Your task to perform on an android device: stop showing notifications on the lock screen Image 0: 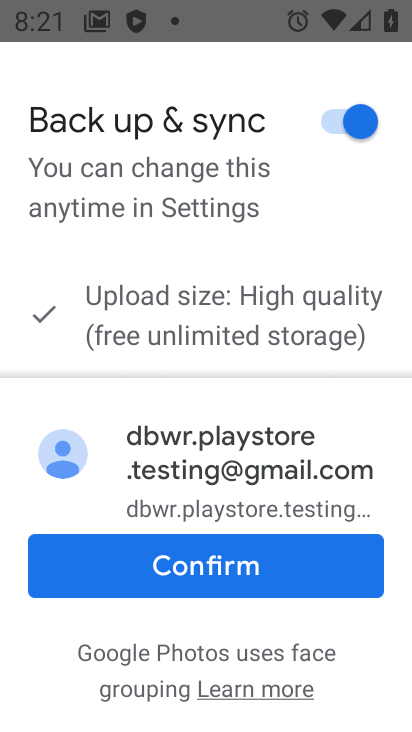
Step 0: press home button
Your task to perform on an android device: stop showing notifications on the lock screen Image 1: 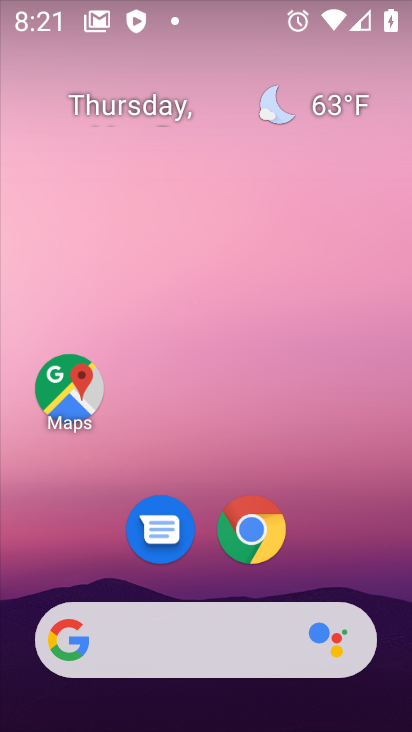
Step 1: drag from (201, 582) to (213, 248)
Your task to perform on an android device: stop showing notifications on the lock screen Image 2: 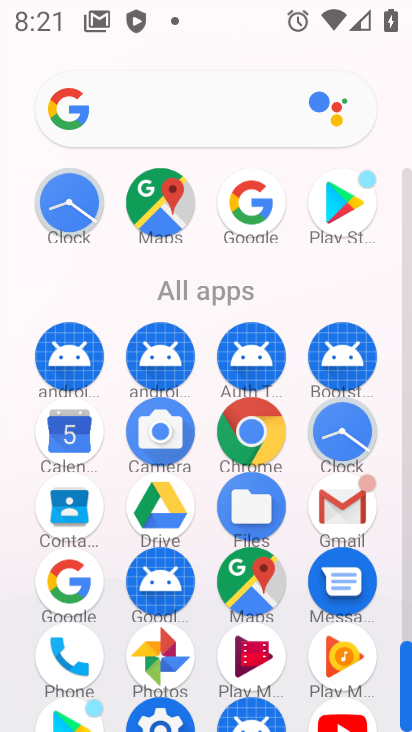
Step 2: click (167, 718)
Your task to perform on an android device: stop showing notifications on the lock screen Image 3: 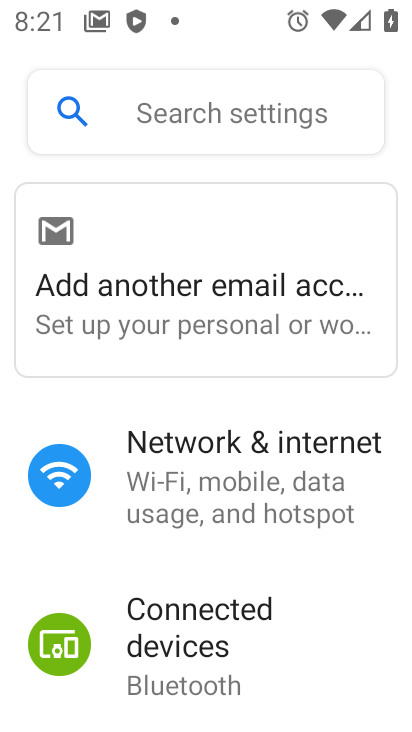
Step 3: drag from (333, 662) to (335, 182)
Your task to perform on an android device: stop showing notifications on the lock screen Image 4: 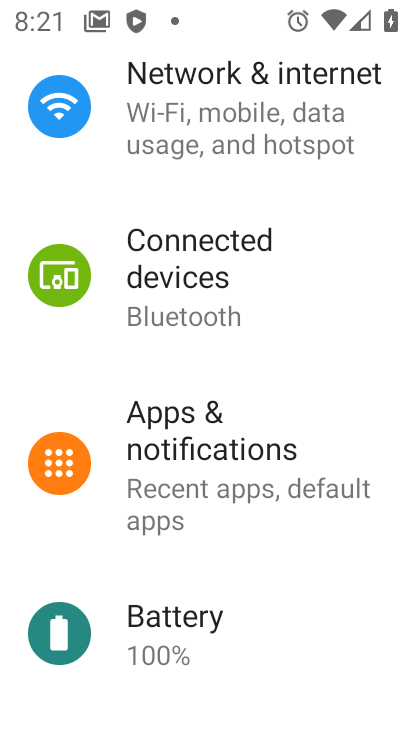
Step 4: click (202, 473)
Your task to perform on an android device: stop showing notifications on the lock screen Image 5: 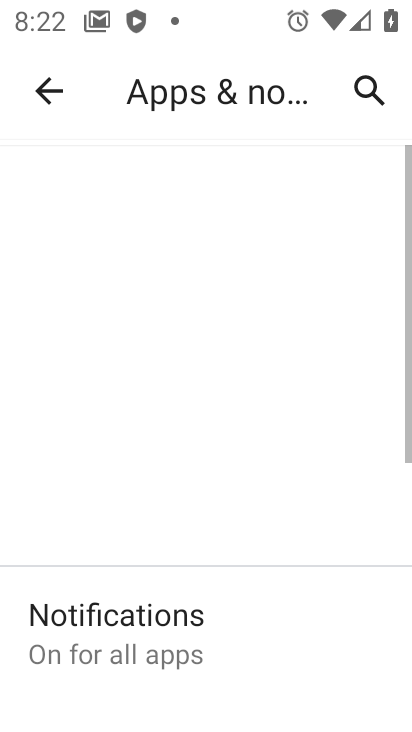
Step 5: drag from (183, 679) to (261, 306)
Your task to perform on an android device: stop showing notifications on the lock screen Image 6: 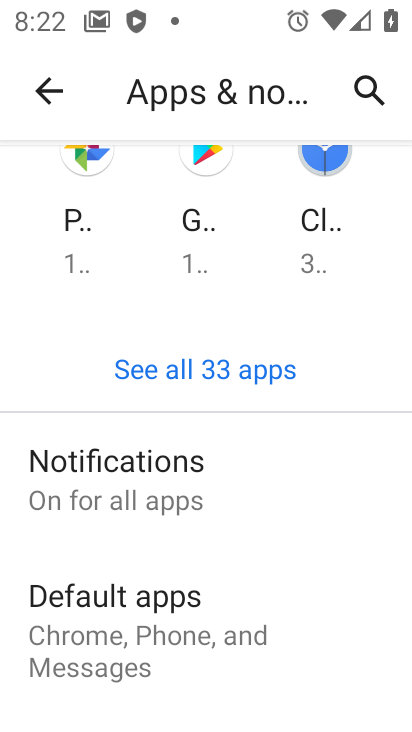
Step 6: drag from (186, 614) to (222, 423)
Your task to perform on an android device: stop showing notifications on the lock screen Image 7: 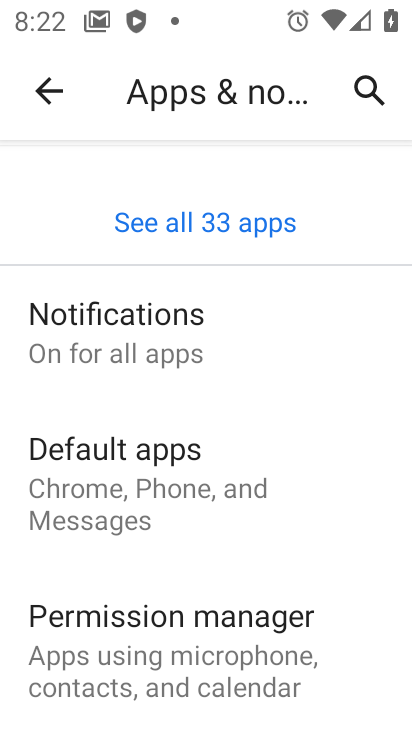
Step 7: click (168, 332)
Your task to perform on an android device: stop showing notifications on the lock screen Image 8: 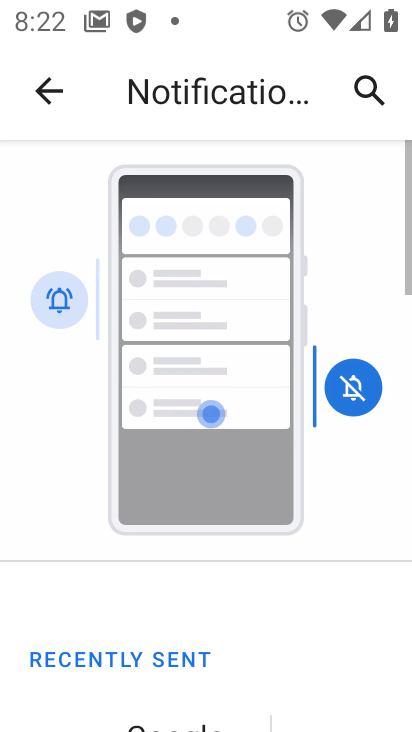
Step 8: drag from (208, 659) to (234, 204)
Your task to perform on an android device: stop showing notifications on the lock screen Image 9: 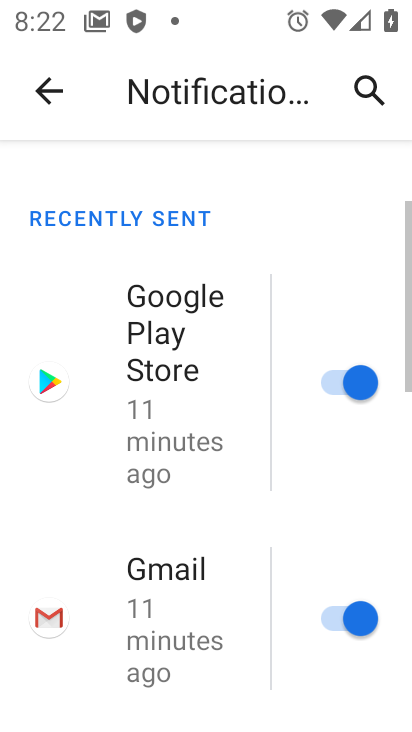
Step 9: drag from (156, 651) to (240, 198)
Your task to perform on an android device: stop showing notifications on the lock screen Image 10: 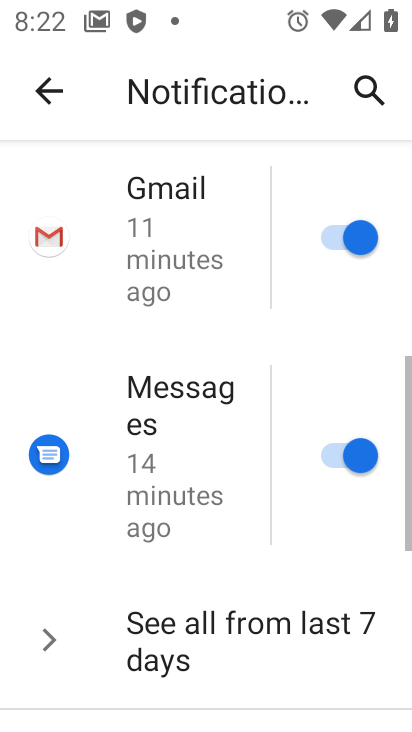
Step 10: drag from (247, 623) to (254, 332)
Your task to perform on an android device: stop showing notifications on the lock screen Image 11: 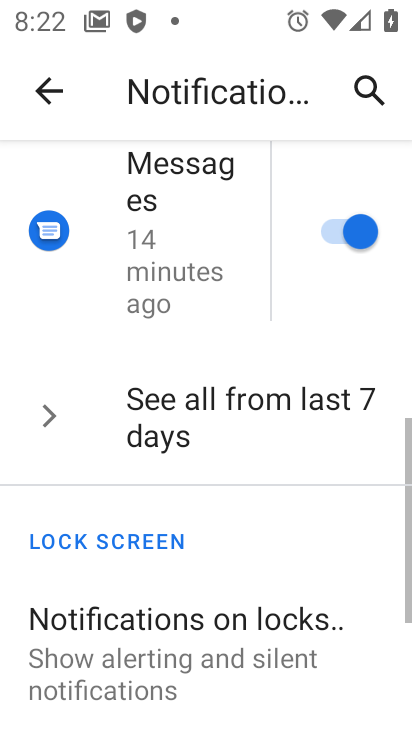
Step 11: drag from (210, 674) to (230, 508)
Your task to perform on an android device: stop showing notifications on the lock screen Image 12: 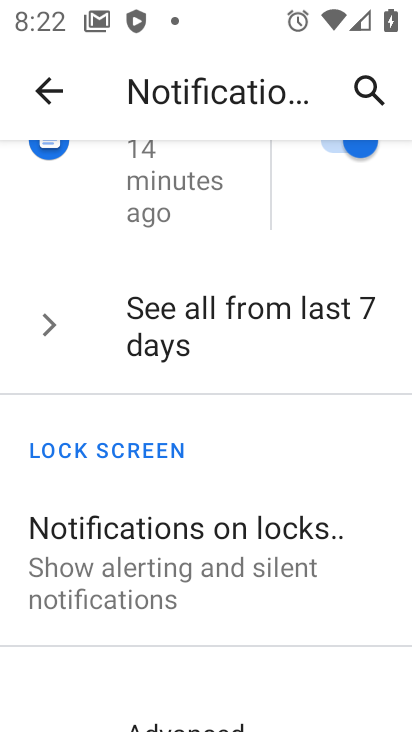
Step 12: click (230, 510)
Your task to perform on an android device: stop showing notifications on the lock screen Image 13: 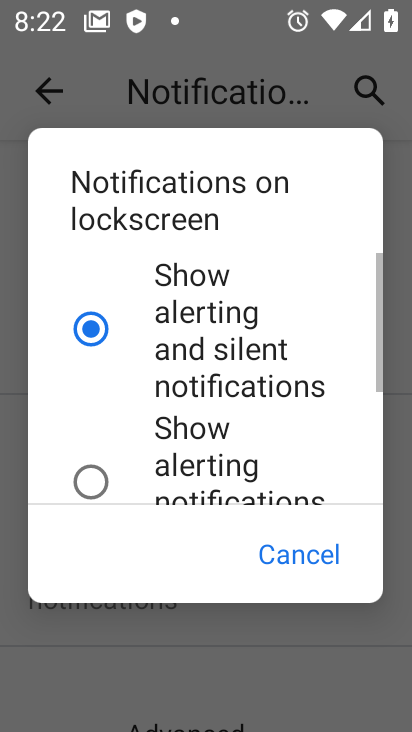
Step 13: drag from (180, 424) to (222, 282)
Your task to perform on an android device: stop showing notifications on the lock screen Image 14: 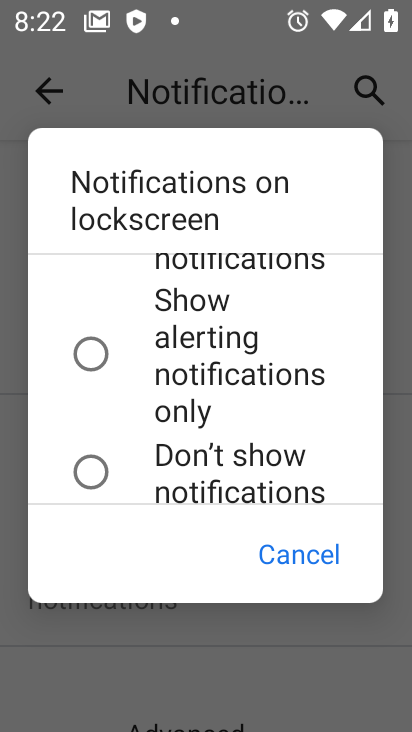
Step 14: click (178, 449)
Your task to perform on an android device: stop showing notifications on the lock screen Image 15: 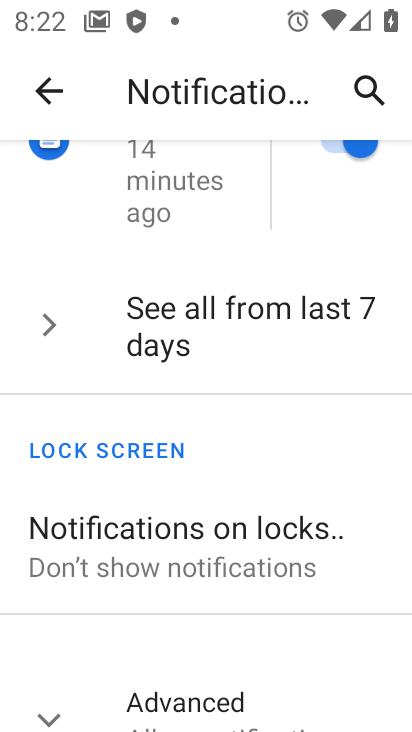
Step 15: task complete